Your task to perform on an android device: add a label to a message in the gmail app Image 0: 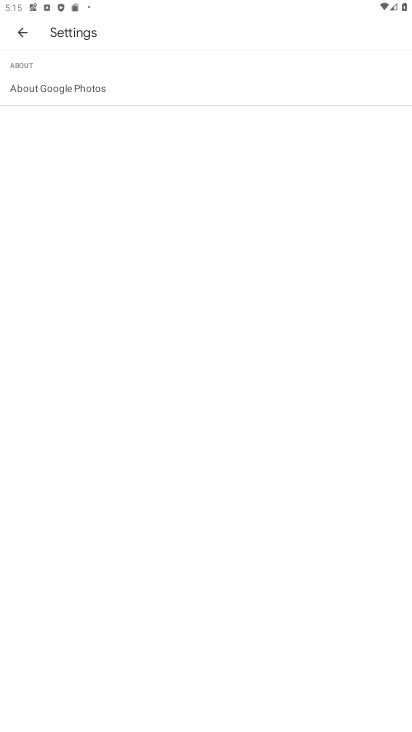
Step 0: click (26, 38)
Your task to perform on an android device: add a label to a message in the gmail app Image 1: 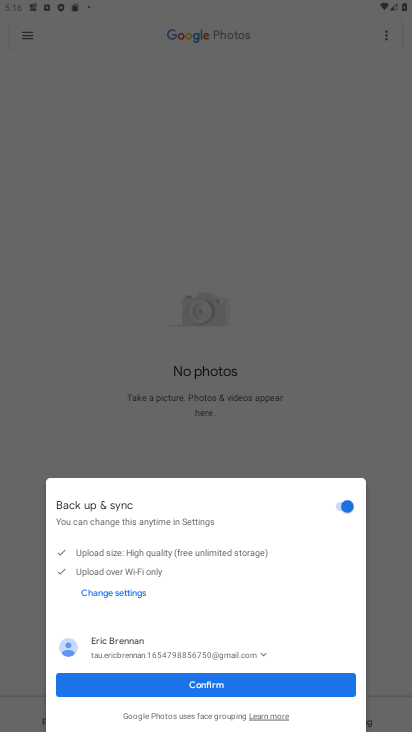
Step 1: task complete